Your task to perform on an android device: Open calendar and show me the first week of next month Image 0: 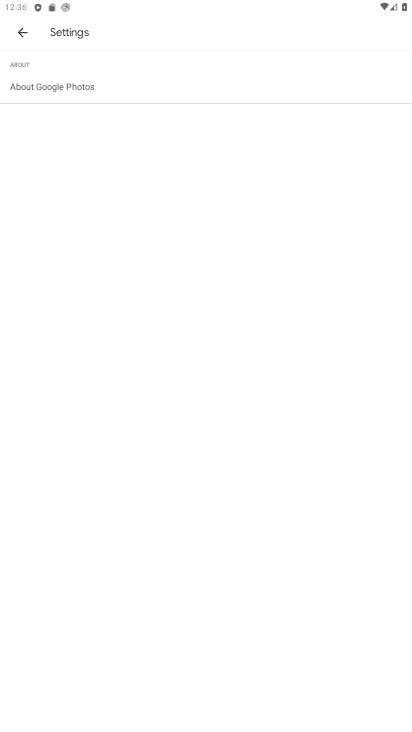
Step 0: press home button
Your task to perform on an android device: Open calendar and show me the first week of next month Image 1: 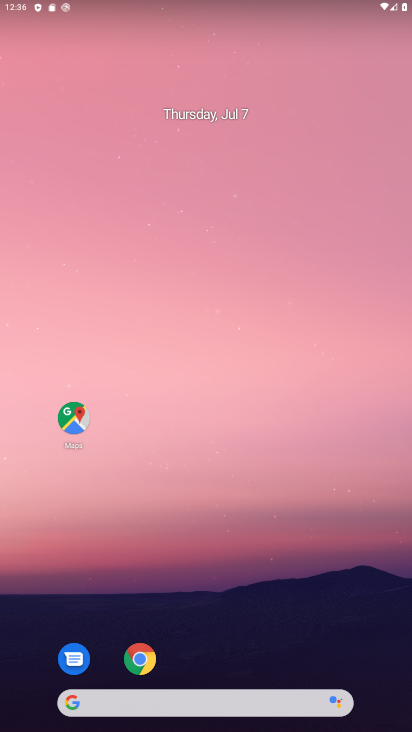
Step 1: drag from (260, 488) to (251, 31)
Your task to perform on an android device: Open calendar and show me the first week of next month Image 2: 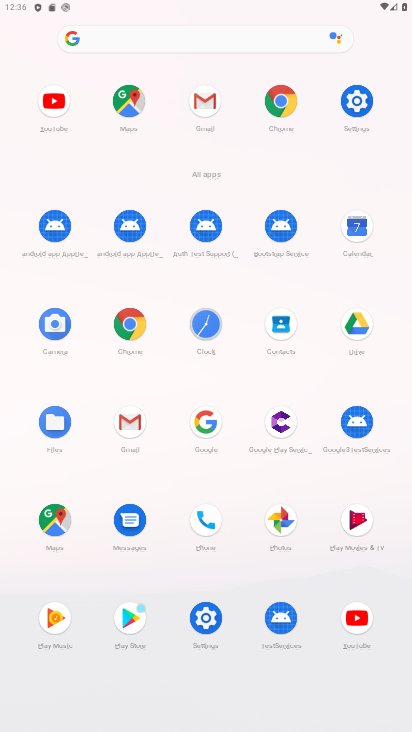
Step 2: click (351, 220)
Your task to perform on an android device: Open calendar and show me the first week of next month Image 3: 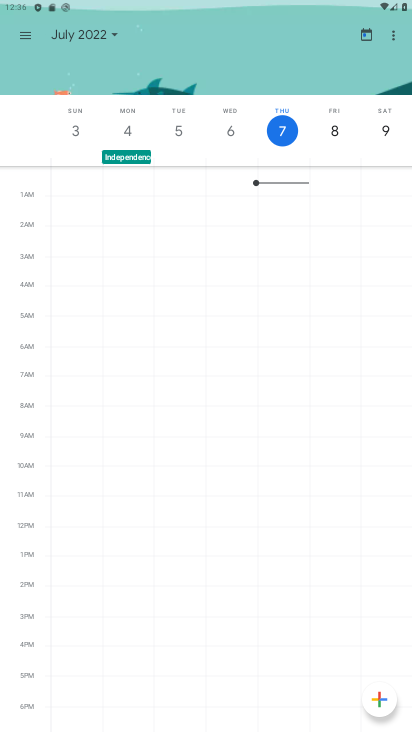
Step 3: click (16, 32)
Your task to perform on an android device: Open calendar and show me the first week of next month Image 4: 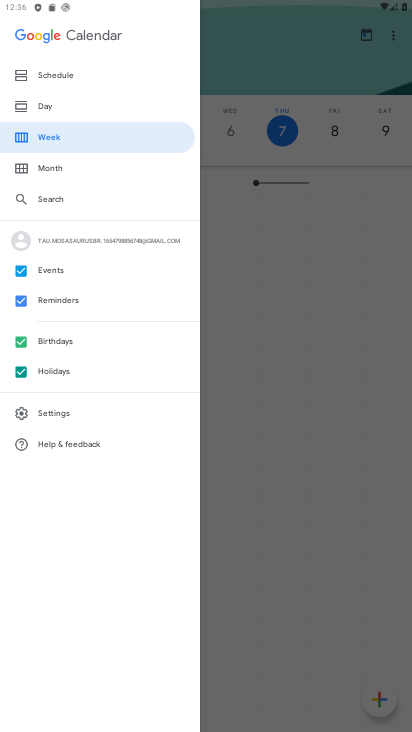
Step 4: click (45, 162)
Your task to perform on an android device: Open calendar and show me the first week of next month Image 5: 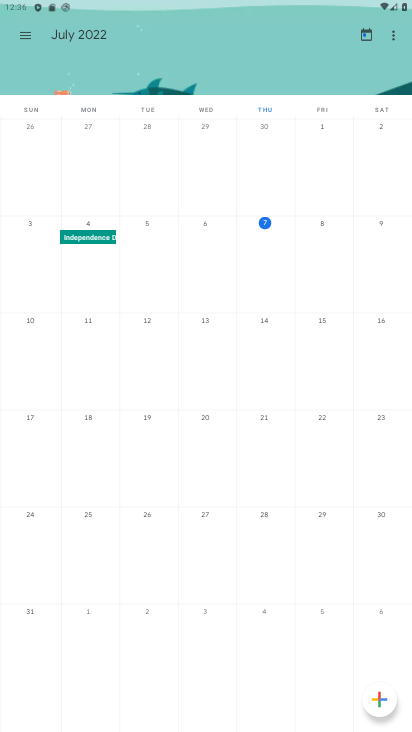
Step 5: click (29, 34)
Your task to perform on an android device: Open calendar and show me the first week of next month Image 6: 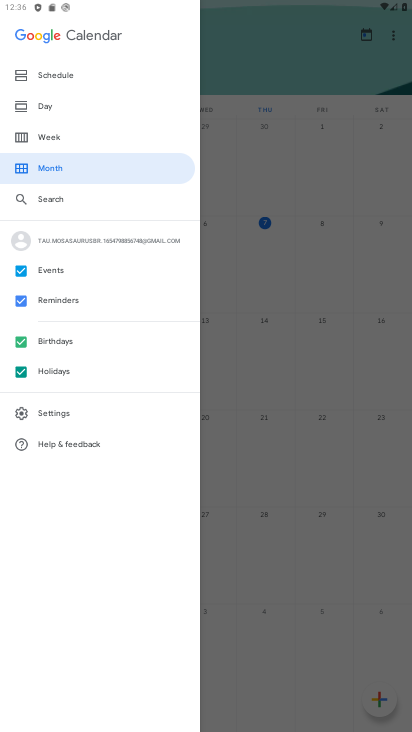
Step 6: click (56, 132)
Your task to perform on an android device: Open calendar and show me the first week of next month Image 7: 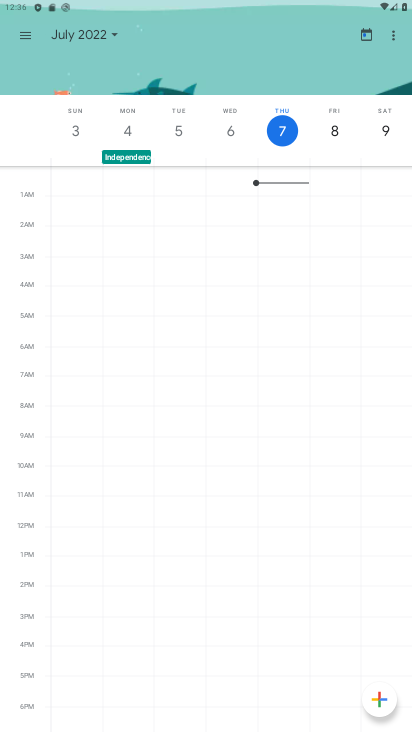
Step 7: click (116, 42)
Your task to perform on an android device: Open calendar and show me the first week of next month Image 8: 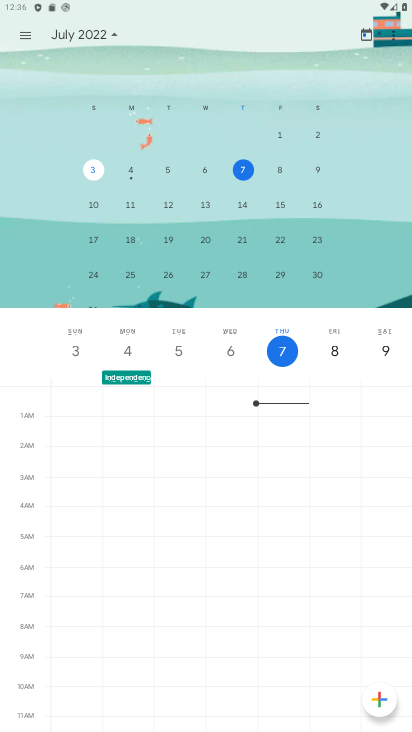
Step 8: drag from (273, 186) to (71, 137)
Your task to perform on an android device: Open calendar and show me the first week of next month Image 9: 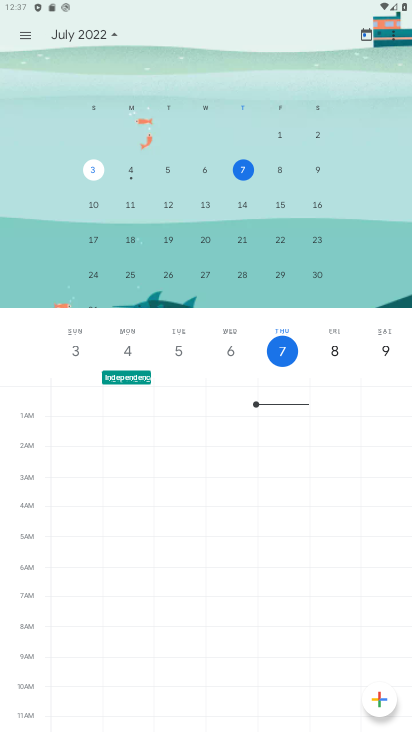
Step 9: drag from (320, 216) to (91, 200)
Your task to perform on an android device: Open calendar and show me the first week of next month Image 10: 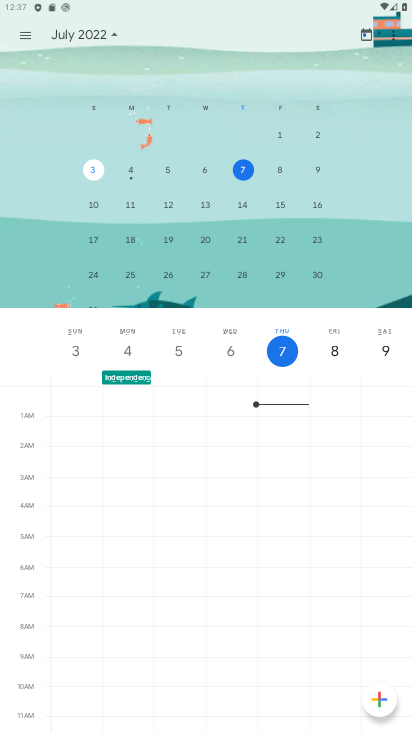
Step 10: drag from (340, 240) to (11, 206)
Your task to perform on an android device: Open calendar and show me the first week of next month Image 11: 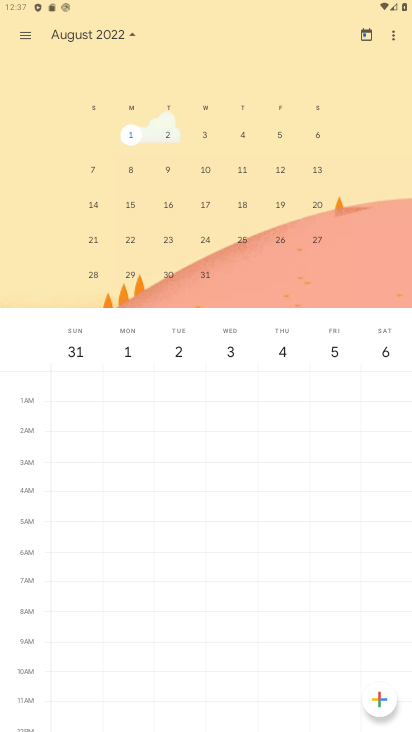
Step 11: click (141, 132)
Your task to perform on an android device: Open calendar and show me the first week of next month Image 12: 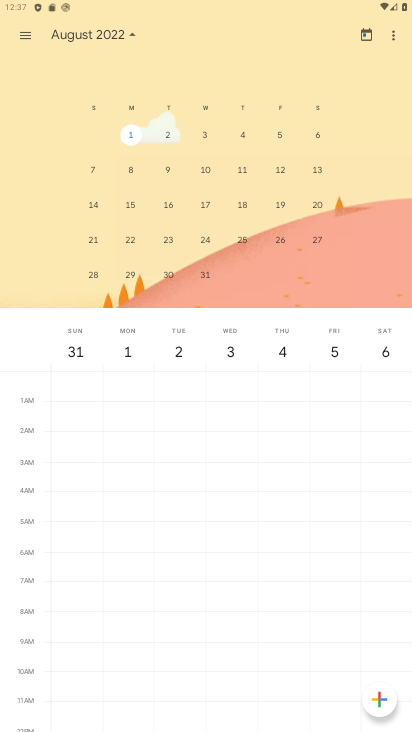
Step 12: task complete